Your task to perform on an android device: turn on the 12-hour format for clock Image 0: 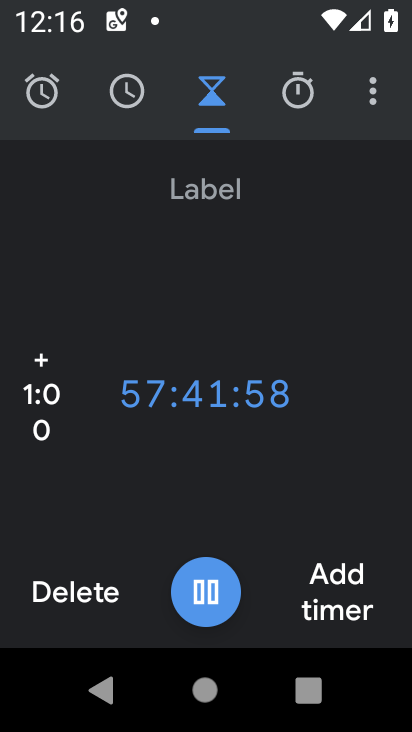
Step 0: click (362, 89)
Your task to perform on an android device: turn on the 12-hour format for clock Image 1: 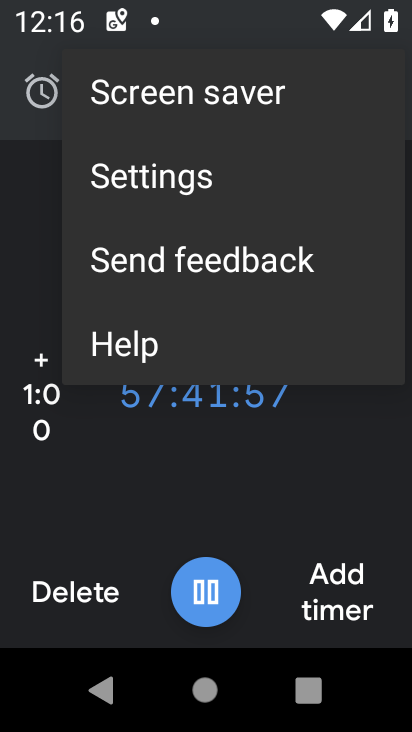
Step 1: click (227, 158)
Your task to perform on an android device: turn on the 12-hour format for clock Image 2: 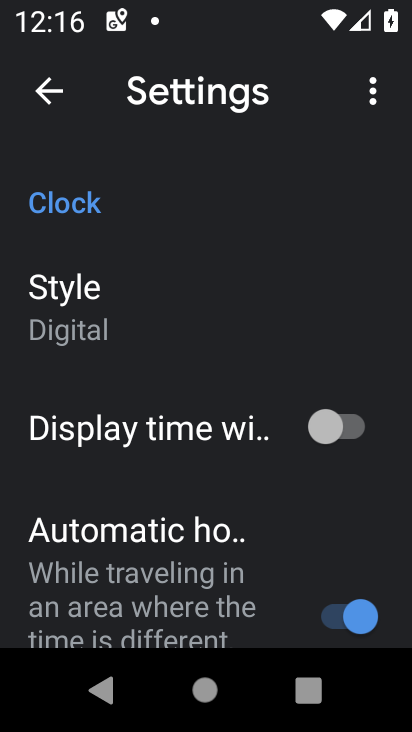
Step 2: drag from (369, 82) to (318, 238)
Your task to perform on an android device: turn on the 12-hour format for clock Image 3: 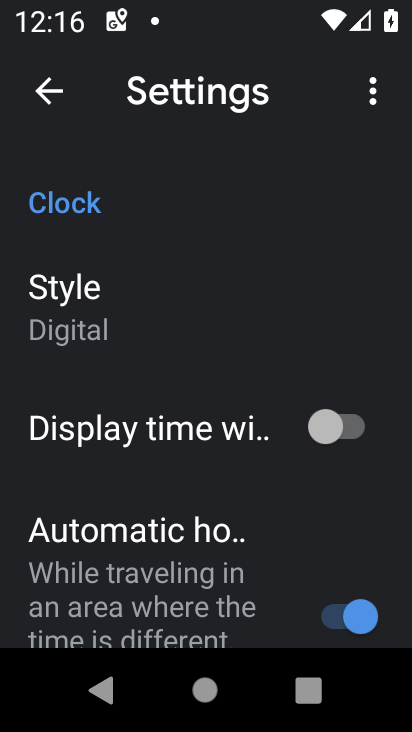
Step 3: click (266, 291)
Your task to perform on an android device: turn on the 12-hour format for clock Image 4: 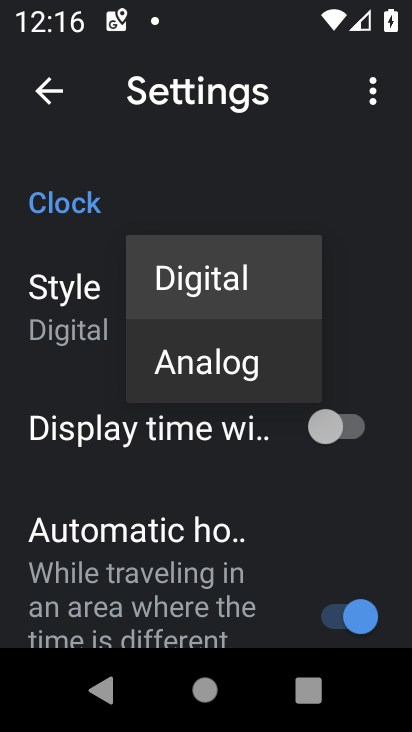
Step 4: click (325, 190)
Your task to perform on an android device: turn on the 12-hour format for clock Image 5: 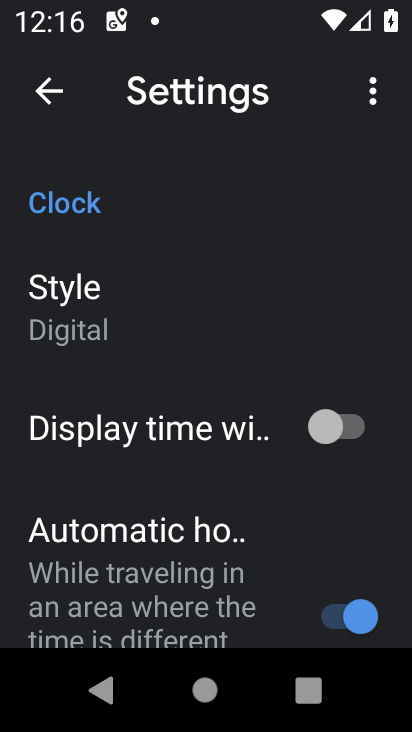
Step 5: drag from (265, 637) to (264, 144)
Your task to perform on an android device: turn on the 12-hour format for clock Image 6: 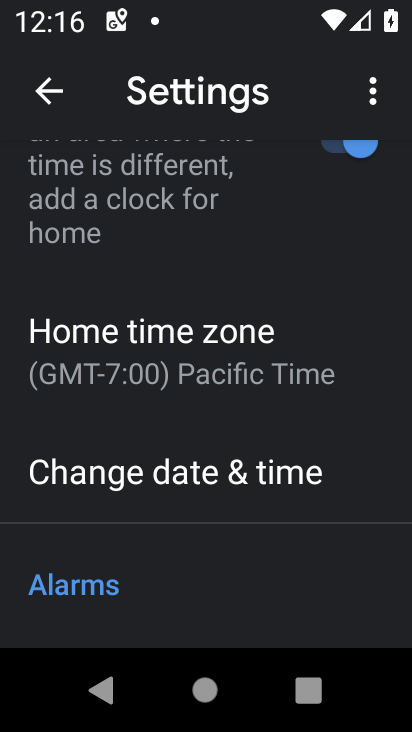
Step 6: click (252, 480)
Your task to perform on an android device: turn on the 12-hour format for clock Image 7: 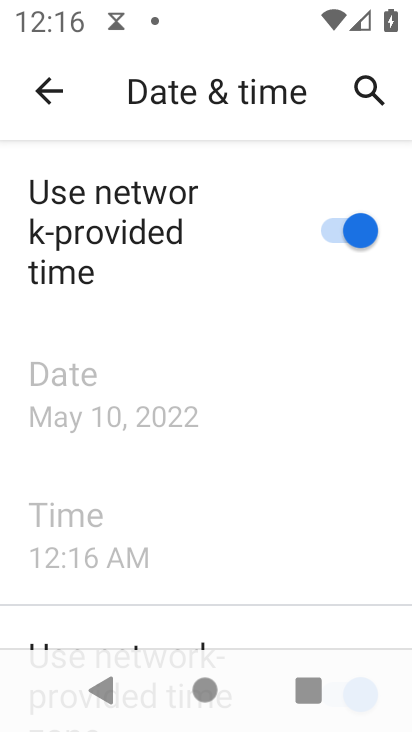
Step 7: task complete